Your task to perform on an android device: move a message to another label in the gmail app Image 0: 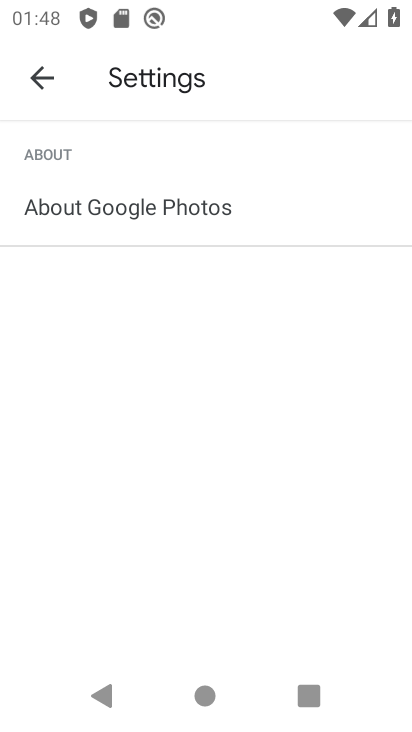
Step 0: press home button
Your task to perform on an android device: move a message to another label in the gmail app Image 1: 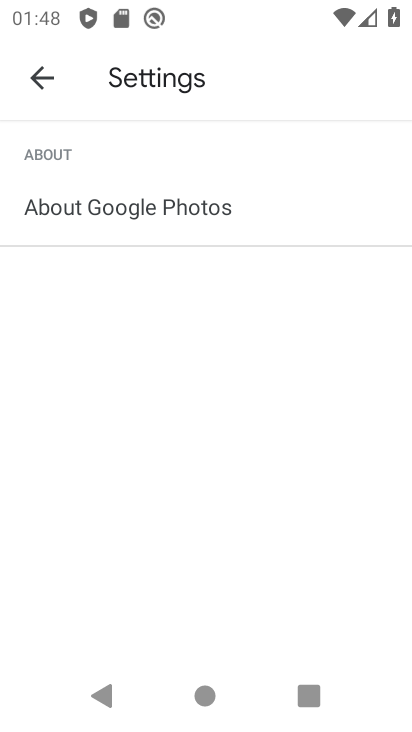
Step 1: press home button
Your task to perform on an android device: move a message to another label in the gmail app Image 2: 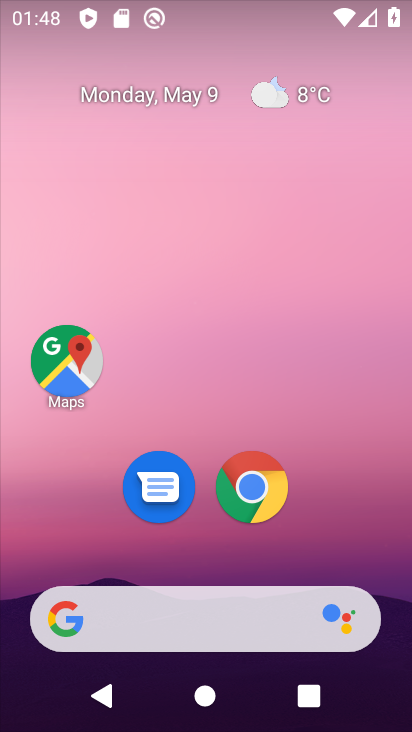
Step 2: drag from (352, 552) to (328, 13)
Your task to perform on an android device: move a message to another label in the gmail app Image 3: 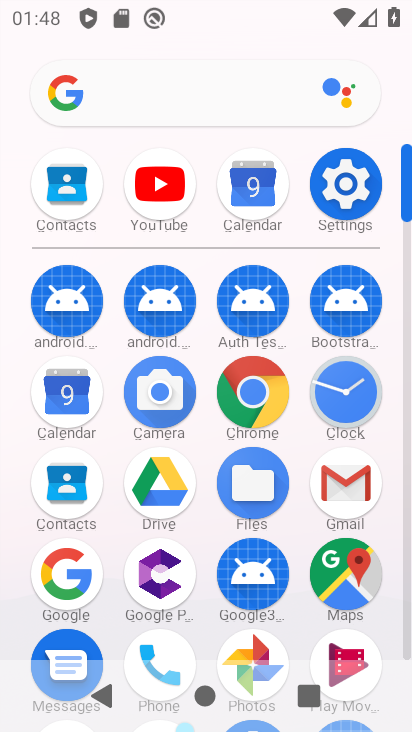
Step 3: click (341, 477)
Your task to perform on an android device: move a message to another label in the gmail app Image 4: 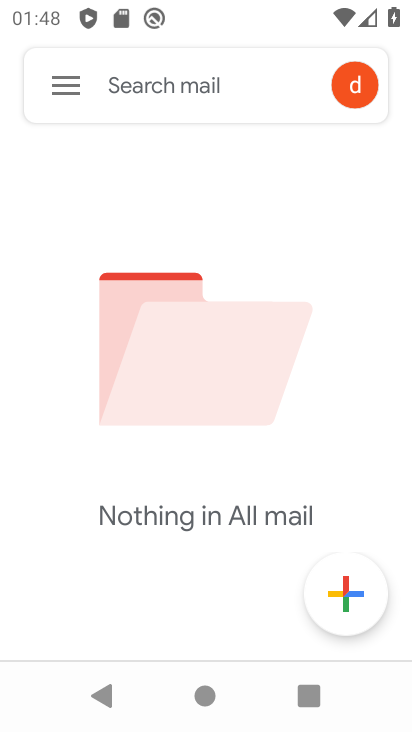
Step 4: click (71, 84)
Your task to perform on an android device: move a message to another label in the gmail app Image 5: 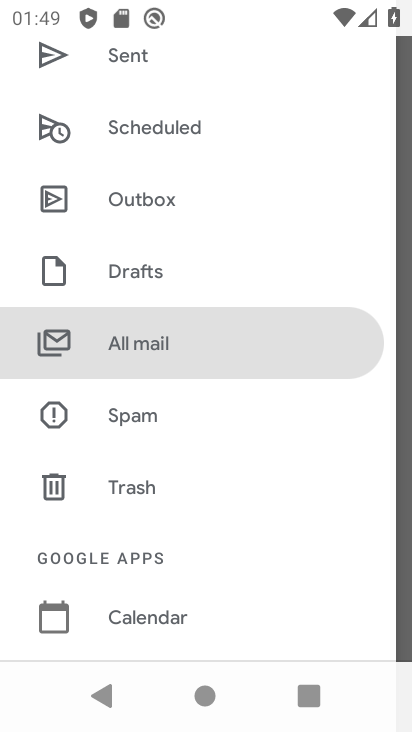
Step 5: drag from (177, 648) to (154, 243)
Your task to perform on an android device: move a message to another label in the gmail app Image 6: 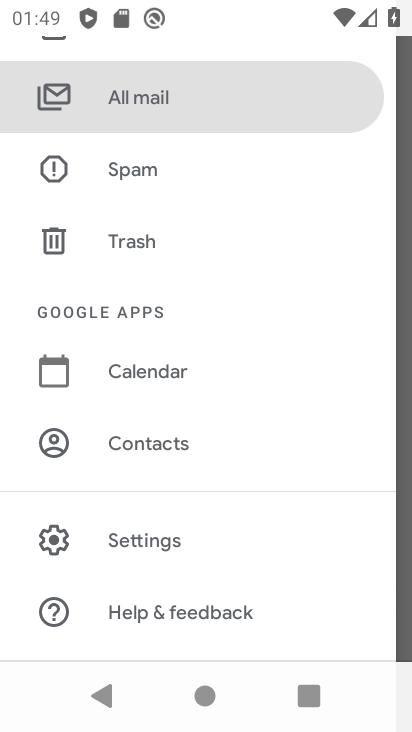
Step 6: click (154, 115)
Your task to perform on an android device: move a message to another label in the gmail app Image 7: 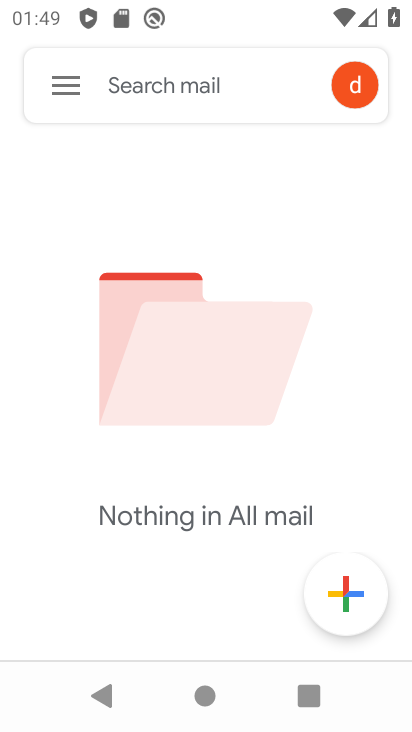
Step 7: task complete